Your task to perform on an android device: set the timer Image 0: 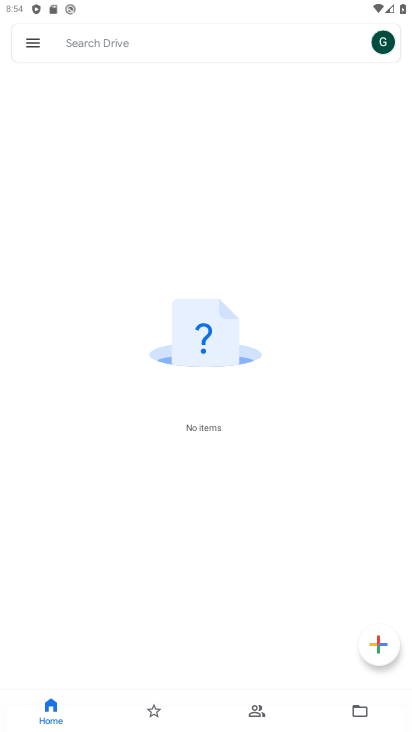
Step 0: press home button
Your task to perform on an android device: set the timer Image 1: 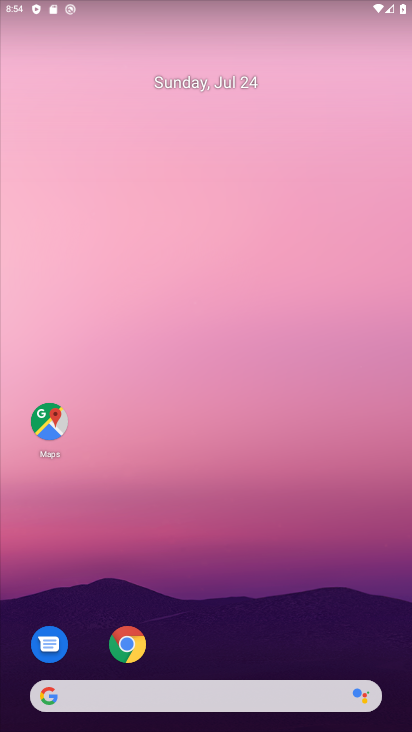
Step 1: drag from (210, 610) to (168, 22)
Your task to perform on an android device: set the timer Image 2: 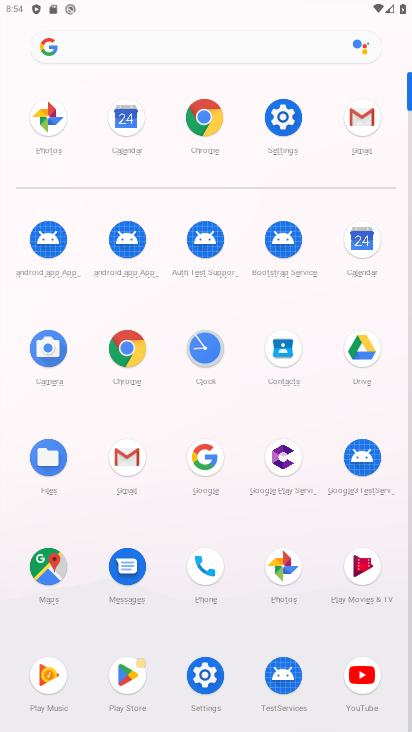
Step 2: click (199, 354)
Your task to perform on an android device: set the timer Image 3: 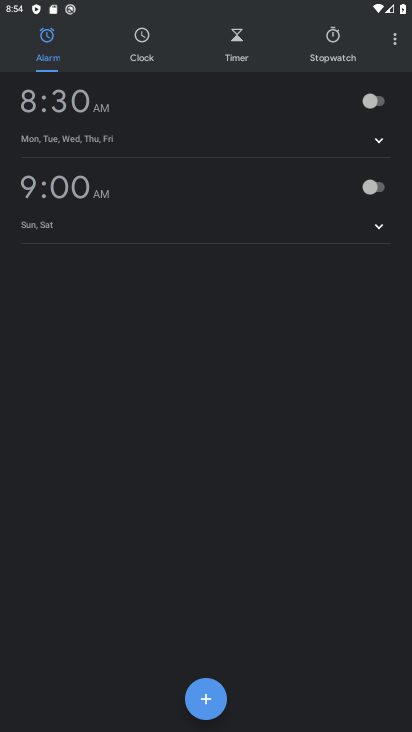
Step 3: click (235, 50)
Your task to perform on an android device: set the timer Image 4: 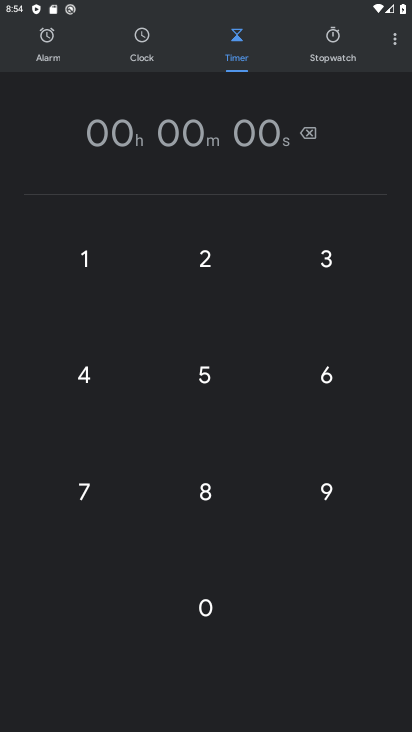
Step 4: click (219, 656)
Your task to perform on an android device: set the timer Image 5: 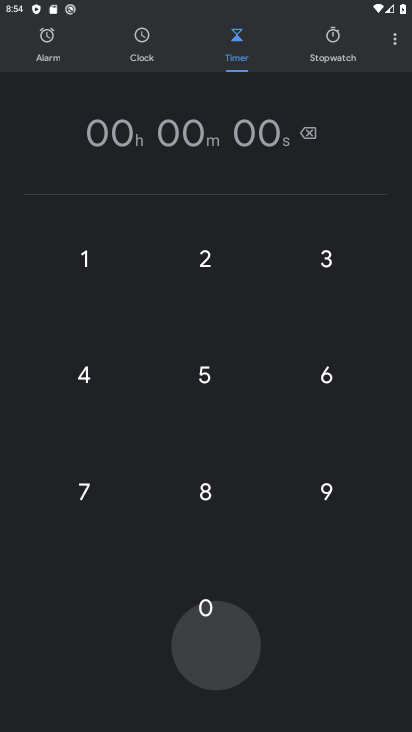
Step 5: click (201, 477)
Your task to perform on an android device: set the timer Image 6: 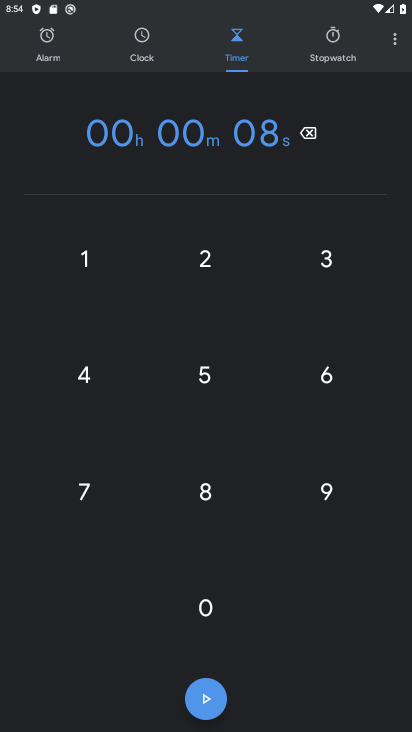
Step 6: click (209, 370)
Your task to perform on an android device: set the timer Image 7: 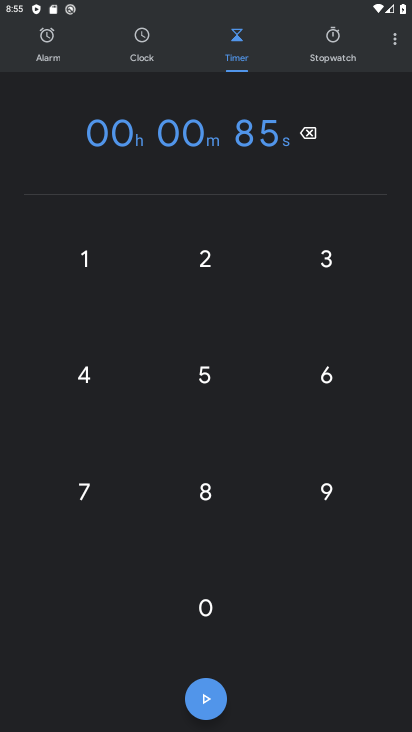
Step 7: click (318, 380)
Your task to perform on an android device: set the timer Image 8: 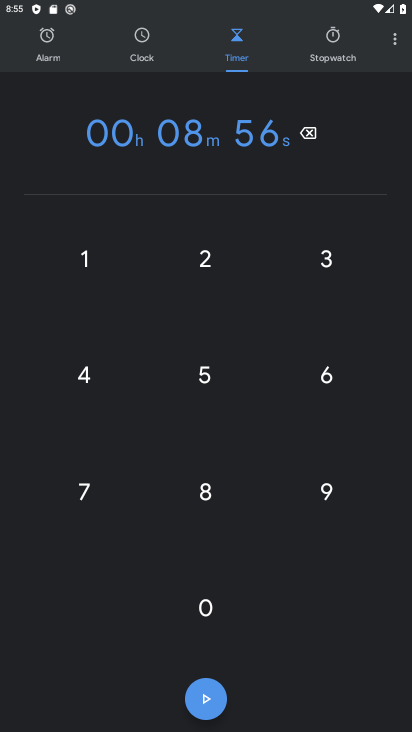
Step 8: click (202, 254)
Your task to perform on an android device: set the timer Image 9: 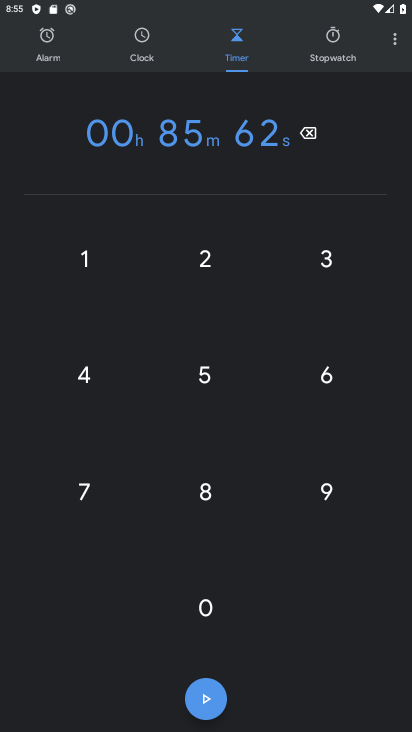
Step 9: click (210, 365)
Your task to perform on an android device: set the timer Image 10: 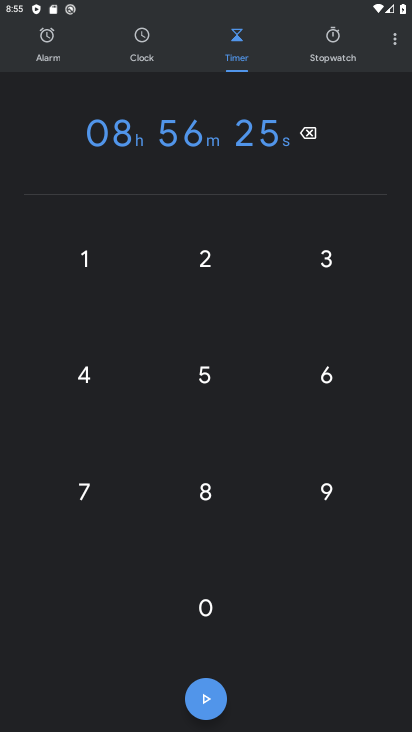
Step 10: click (222, 696)
Your task to perform on an android device: set the timer Image 11: 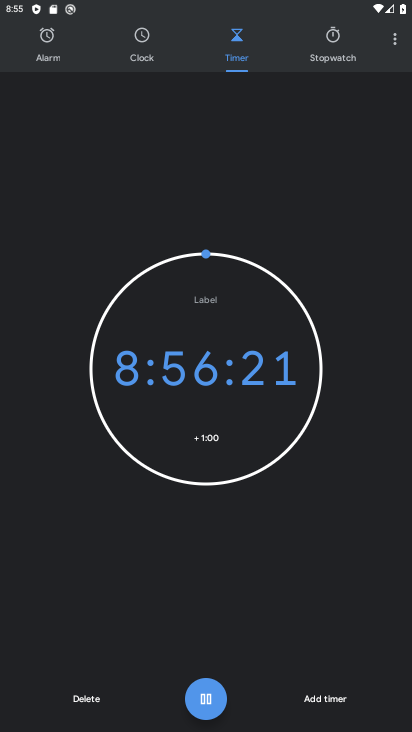
Step 11: task complete